Your task to perform on an android device: Open Reddit.com Image 0: 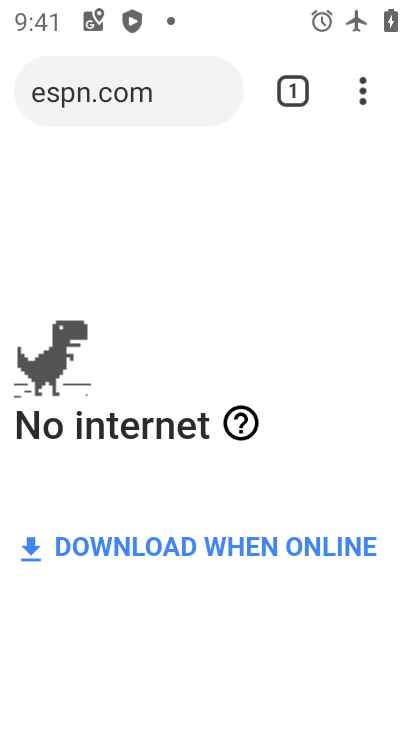
Step 0: press home button
Your task to perform on an android device: Open Reddit.com Image 1: 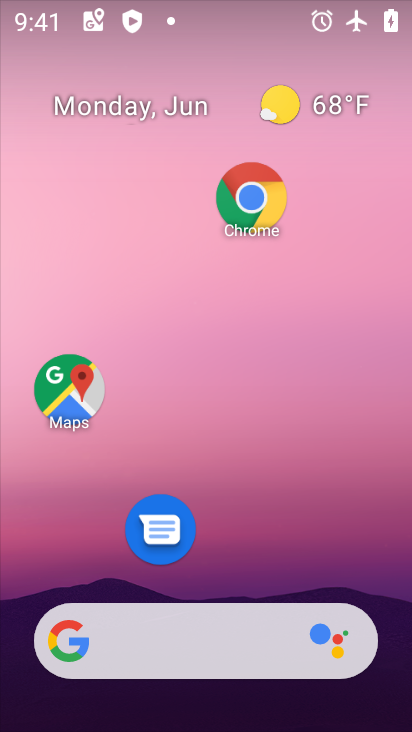
Step 1: click (251, 219)
Your task to perform on an android device: Open Reddit.com Image 2: 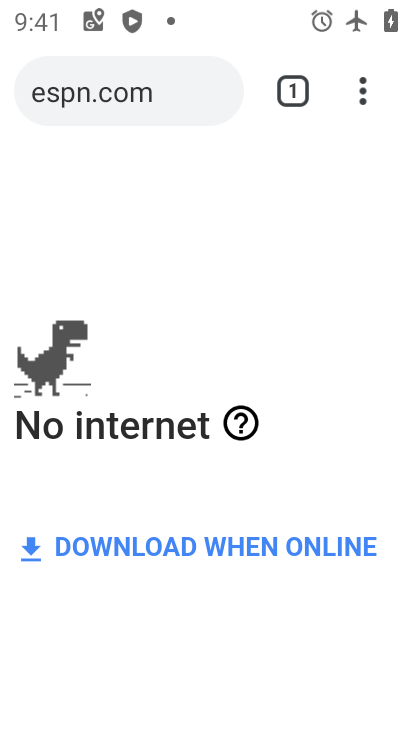
Step 2: click (299, 101)
Your task to perform on an android device: Open Reddit.com Image 3: 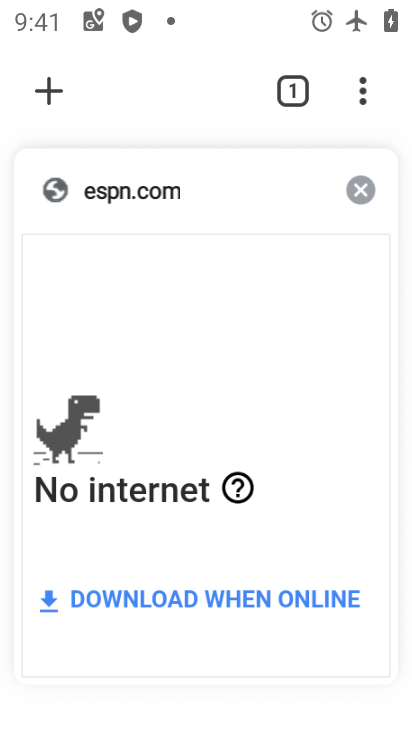
Step 3: click (42, 68)
Your task to perform on an android device: Open Reddit.com Image 4: 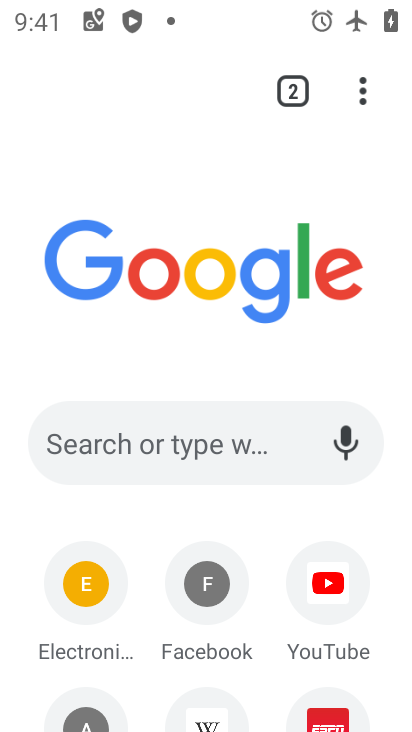
Step 4: click (181, 416)
Your task to perform on an android device: Open Reddit.com Image 5: 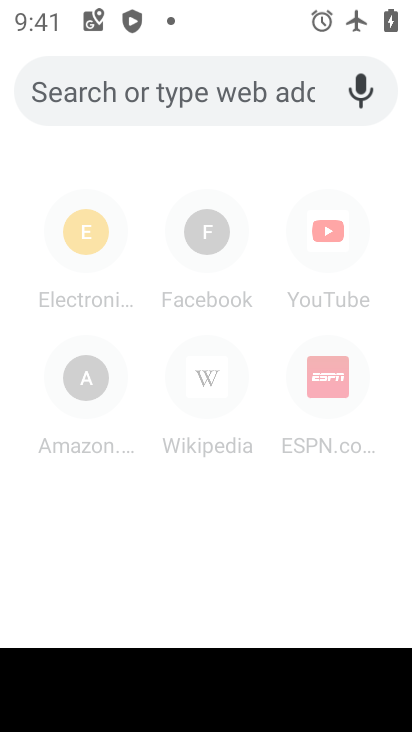
Step 5: type "Reddit.com"
Your task to perform on an android device: Open Reddit.com Image 6: 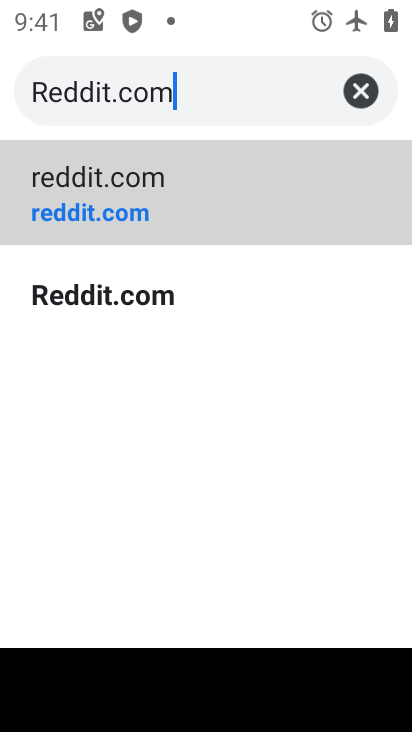
Step 6: click (213, 204)
Your task to perform on an android device: Open Reddit.com Image 7: 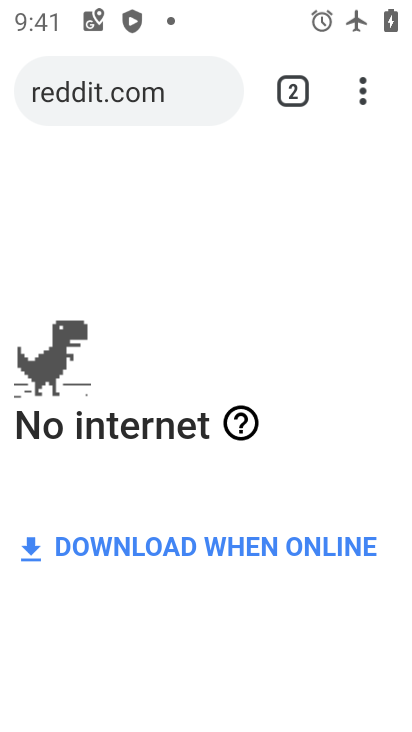
Step 7: task complete